Your task to perform on an android device: Is it going to rain tomorrow? Image 0: 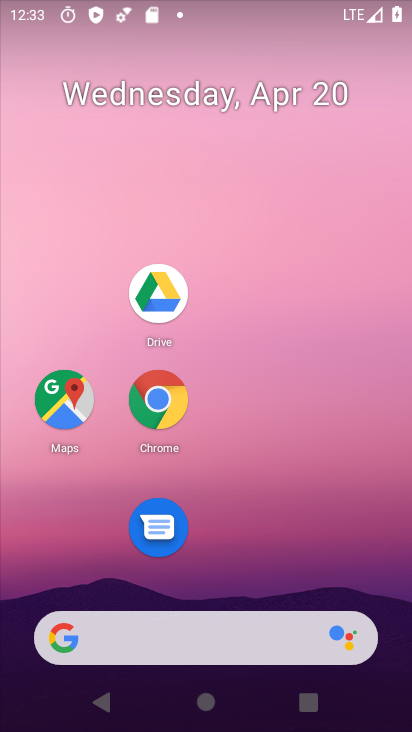
Step 0: drag from (216, 588) to (275, 129)
Your task to perform on an android device: Is it going to rain tomorrow? Image 1: 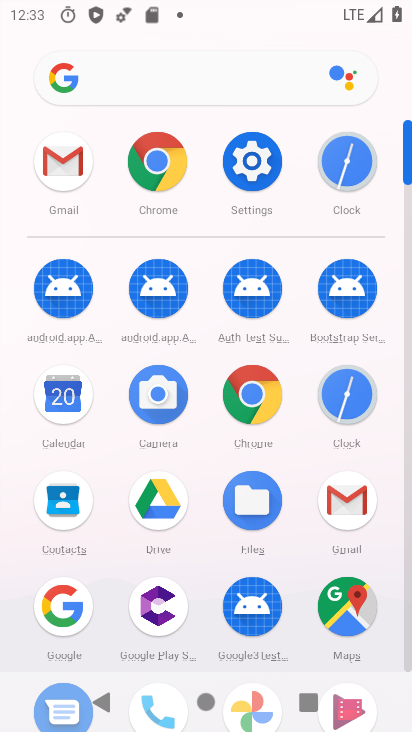
Step 1: click (158, 84)
Your task to perform on an android device: Is it going to rain tomorrow? Image 2: 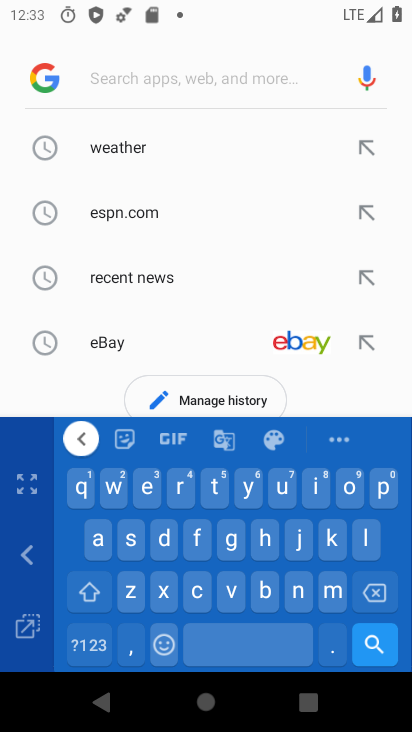
Step 2: click (127, 148)
Your task to perform on an android device: Is it going to rain tomorrow? Image 3: 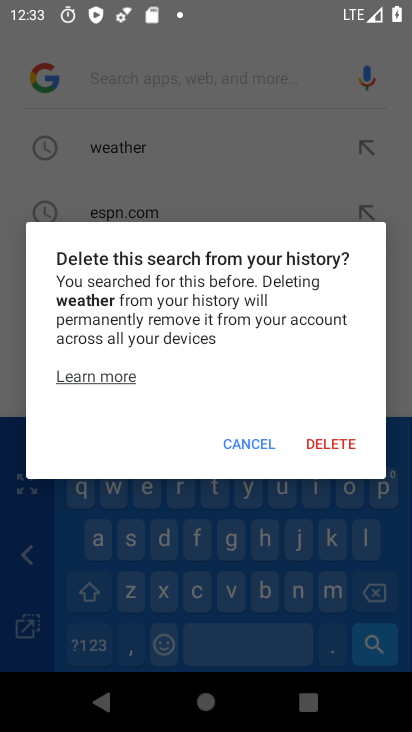
Step 3: click (259, 441)
Your task to perform on an android device: Is it going to rain tomorrow? Image 4: 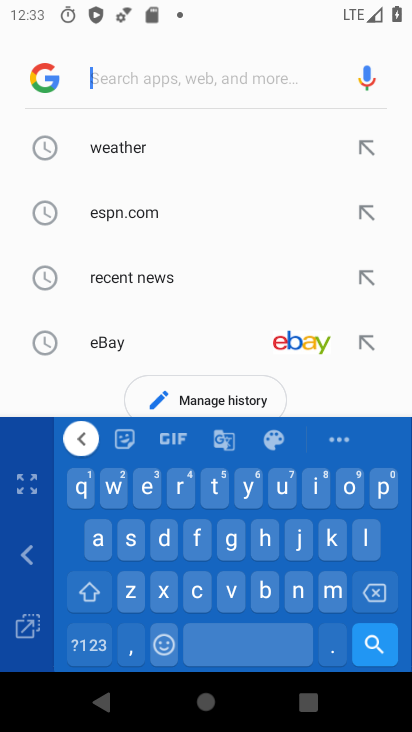
Step 4: click (140, 139)
Your task to perform on an android device: Is it going to rain tomorrow? Image 5: 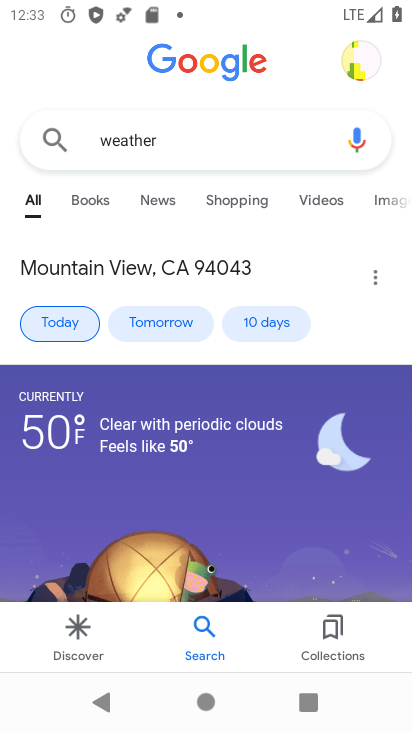
Step 5: click (150, 324)
Your task to perform on an android device: Is it going to rain tomorrow? Image 6: 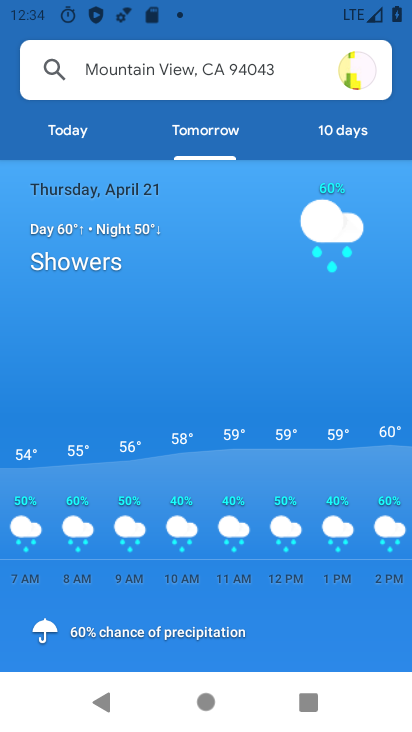
Step 6: task complete